Your task to perform on an android device: Open calendar and show me the first week of next month Image 0: 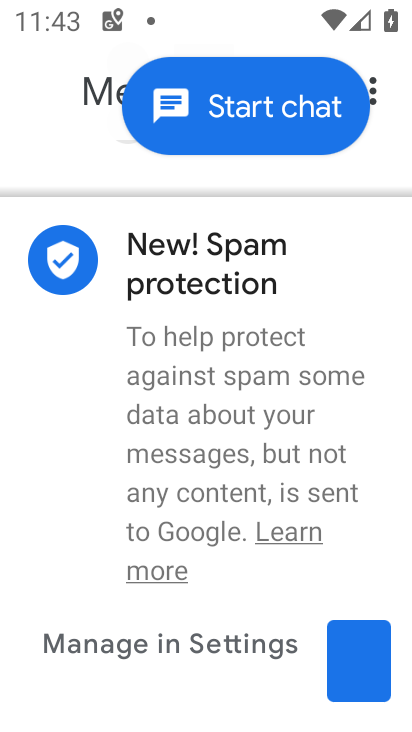
Step 0: press home button
Your task to perform on an android device: Open calendar and show me the first week of next month Image 1: 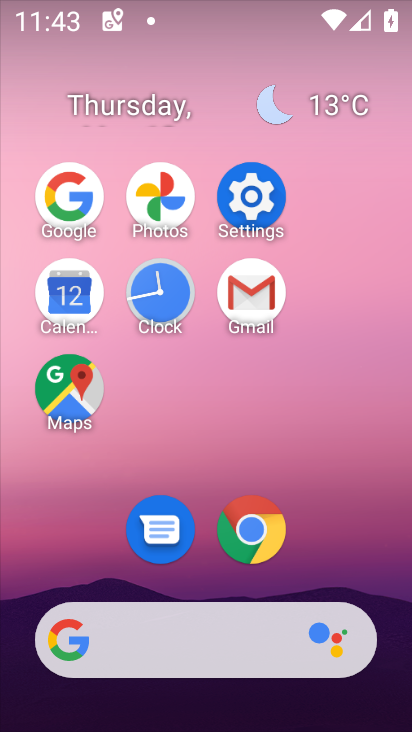
Step 1: click (61, 307)
Your task to perform on an android device: Open calendar and show me the first week of next month Image 2: 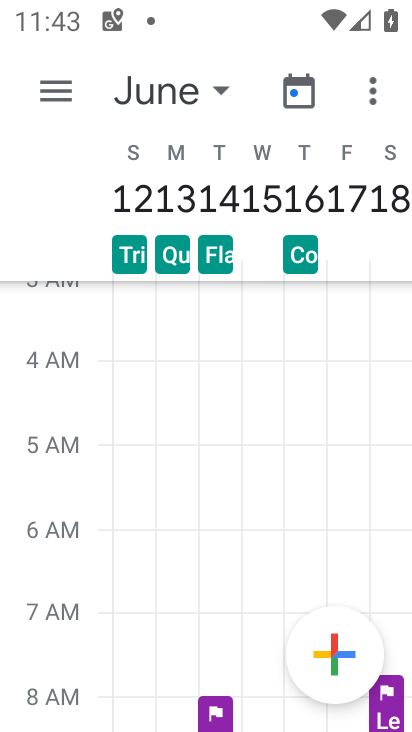
Step 2: click (56, 104)
Your task to perform on an android device: Open calendar and show me the first week of next month Image 3: 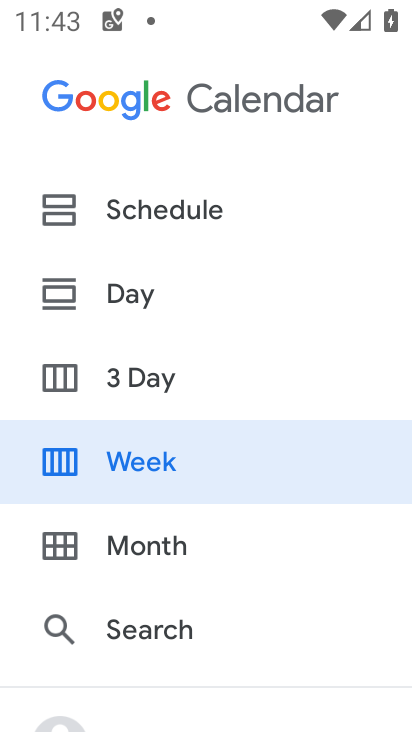
Step 3: click (114, 450)
Your task to perform on an android device: Open calendar and show me the first week of next month Image 4: 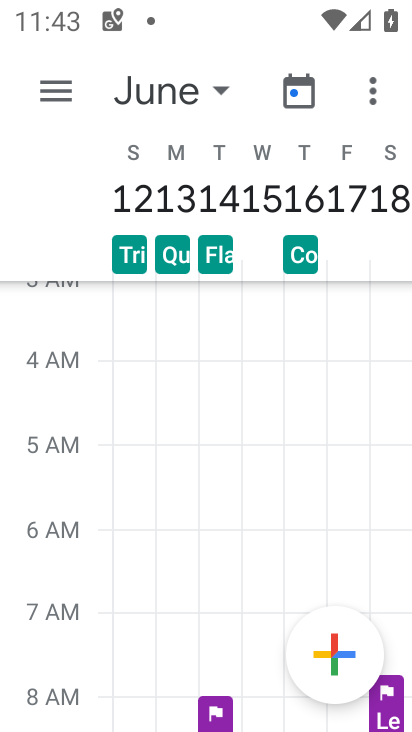
Step 4: task complete